Your task to perform on an android device: What's the weather going to be this weekend? Image 0: 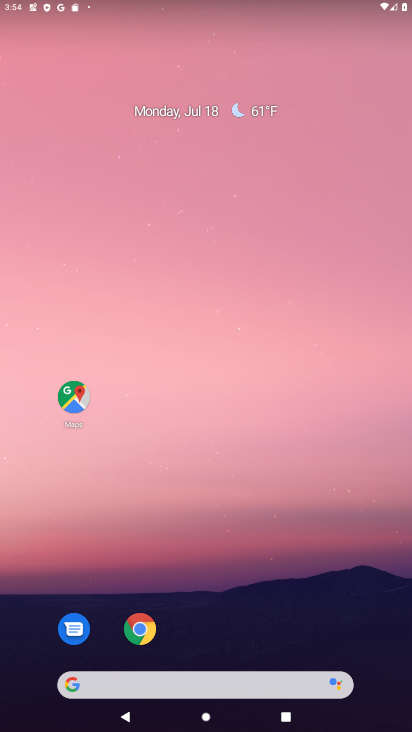
Step 0: drag from (191, 671) to (202, 121)
Your task to perform on an android device: What's the weather going to be this weekend? Image 1: 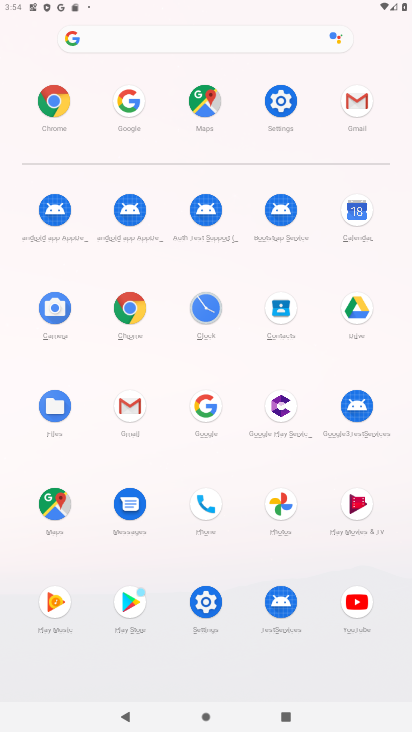
Step 1: click (197, 404)
Your task to perform on an android device: What's the weather going to be this weekend? Image 2: 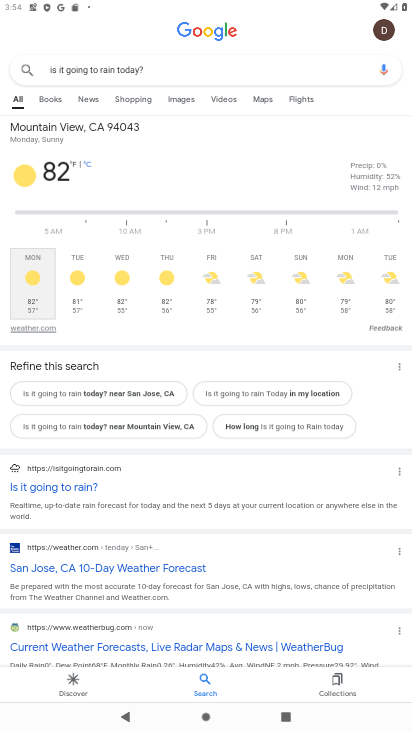
Step 2: click (81, 72)
Your task to perform on an android device: What's the weather going to be this weekend? Image 3: 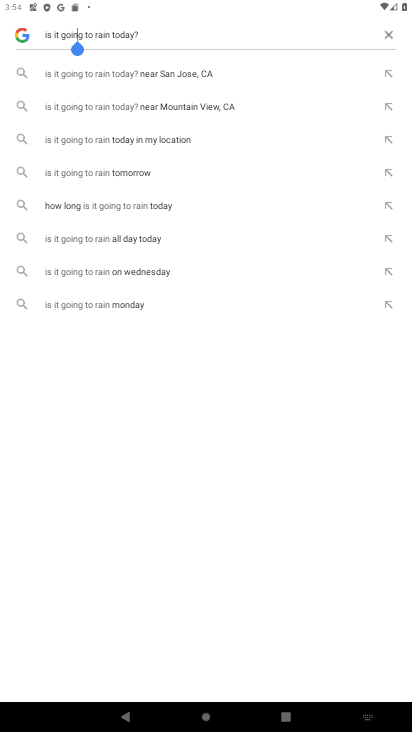
Step 3: click (388, 34)
Your task to perform on an android device: What's the weather going to be this weekend? Image 4: 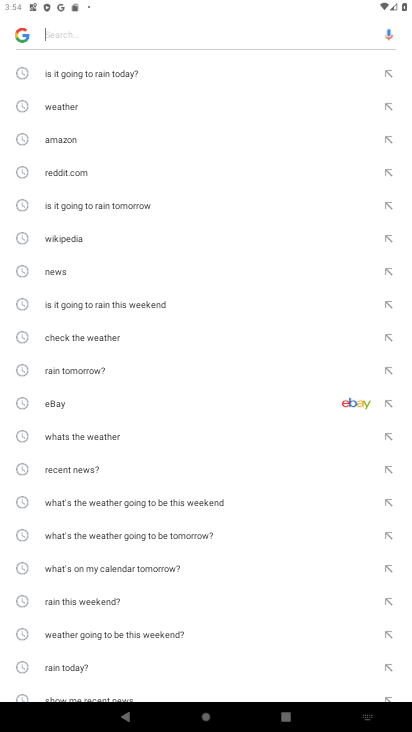
Step 4: click (114, 34)
Your task to perform on an android device: What's the weather going to be this weekend? Image 5: 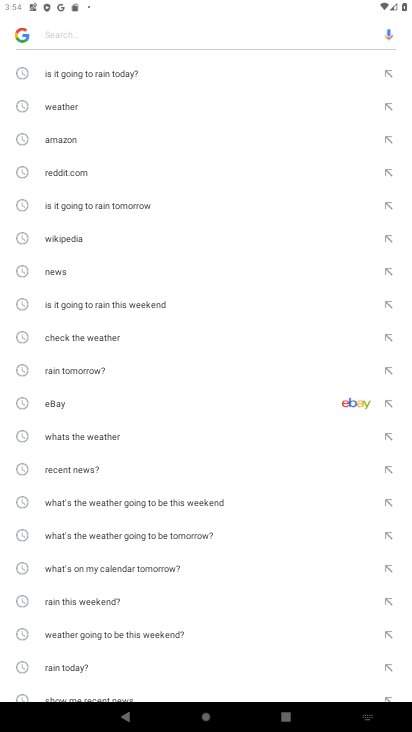
Step 5: click (155, 502)
Your task to perform on an android device: What's the weather going to be this weekend? Image 6: 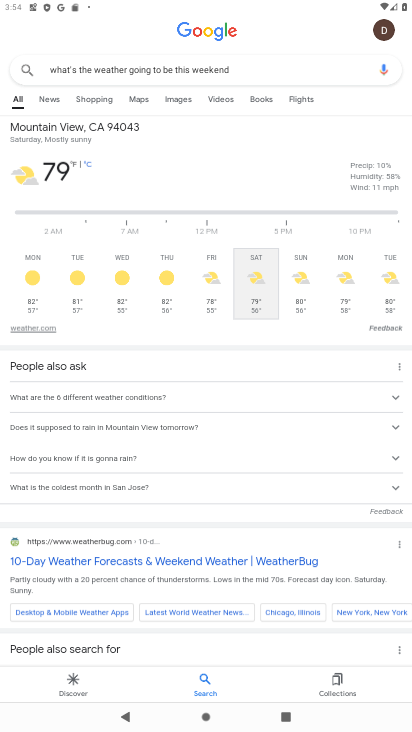
Step 6: task complete